Your task to perform on an android device: open app "Mercado Libre" (install if not already installed) Image 0: 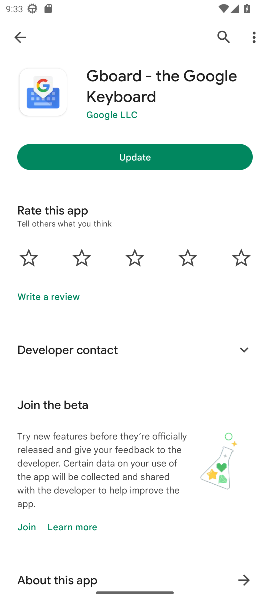
Step 0: press home button
Your task to perform on an android device: open app "Mercado Libre" (install if not already installed) Image 1: 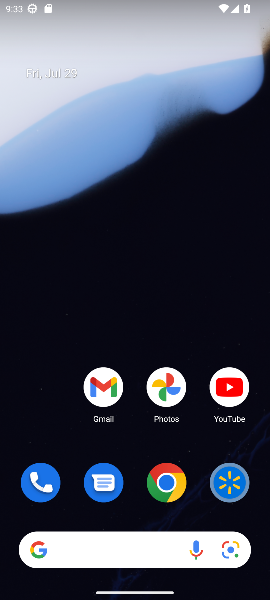
Step 1: drag from (134, 595) to (120, 296)
Your task to perform on an android device: open app "Mercado Libre" (install if not already installed) Image 2: 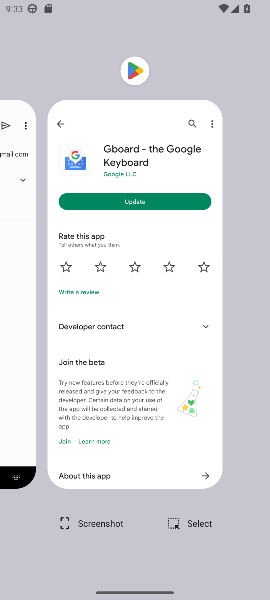
Step 2: press home button
Your task to perform on an android device: open app "Mercado Libre" (install if not already installed) Image 3: 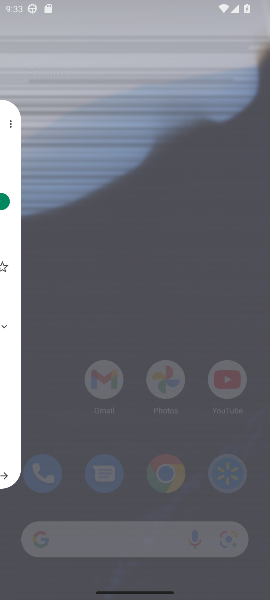
Step 3: press home button
Your task to perform on an android device: open app "Mercado Libre" (install if not already installed) Image 4: 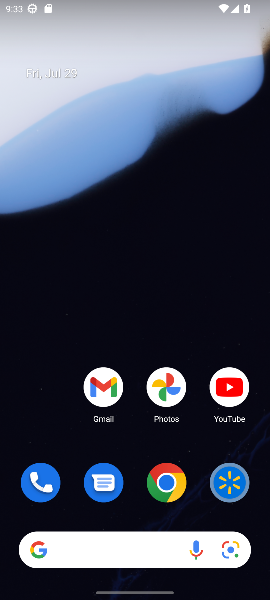
Step 4: press home button
Your task to perform on an android device: open app "Mercado Libre" (install if not already installed) Image 5: 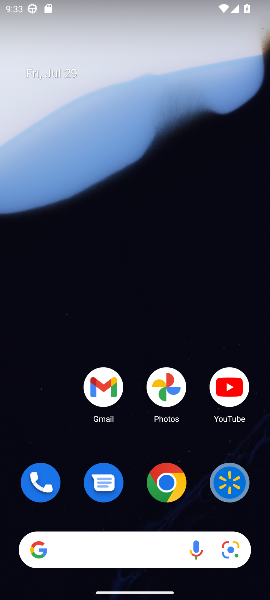
Step 5: drag from (139, 592) to (121, 130)
Your task to perform on an android device: open app "Mercado Libre" (install if not already installed) Image 6: 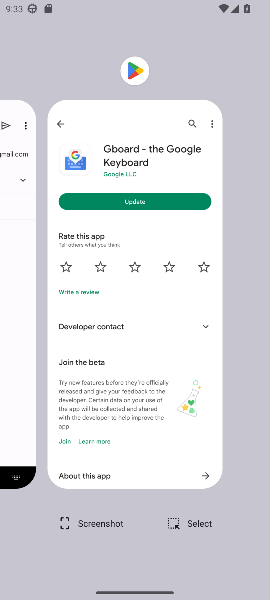
Step 6: press home button
Your task to perform on an android device: open app "Mercado Libre" (install if not already installed) Image 7: 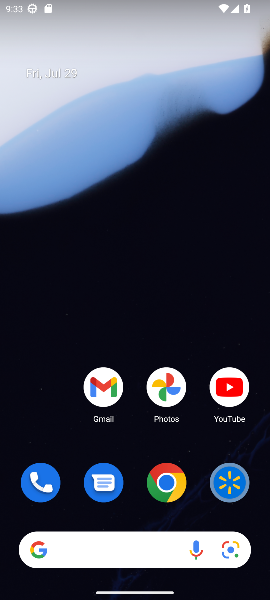
Step 7: drag from (123, 598) to (94, 186)
Your task to perform on an android device: open app "Mercado Libre" (install if not already installed) Image 8: 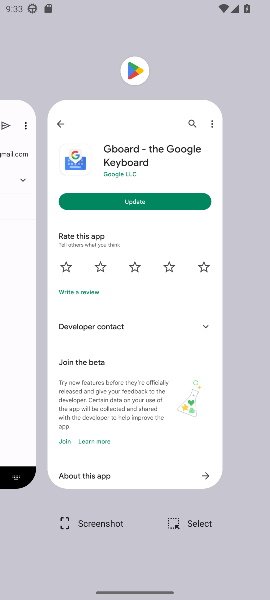
Step 8: press home button
Your task to perform on an android device: open app "Mercado Libre" (install if not already installed) Image 9: 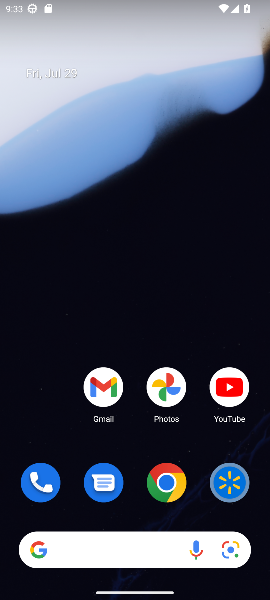
Step 9: drag from (129, 588) to (110, 177)
Your task to perform on an android device: open app "Mercado Libre" (install if not already installed) Image 10: 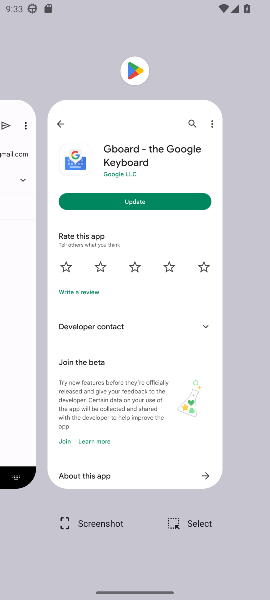
Step 10: click (108, 263)
Your task to perform on an android device: open app "Mercado Libre" (install if not already installed) Image 11: 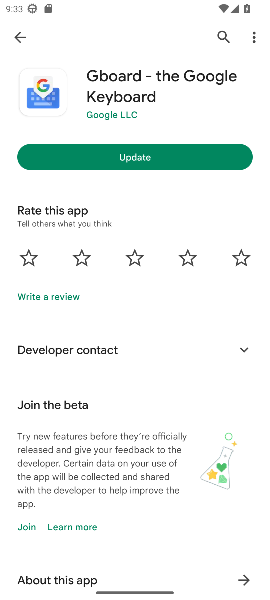
Step 11: click (224, 36)
Your task to perform on an android device: open app "Mercado Libre" (install if not already installed) Image 12: 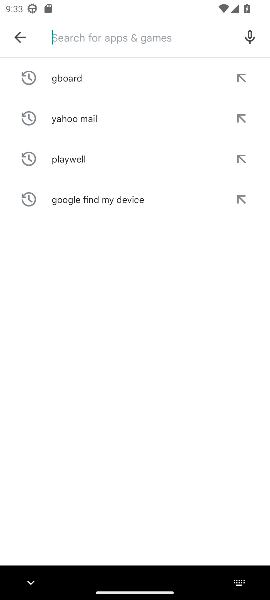
Step 12: type "Mercado Libre"
Your task to perform on an android device: open app "Mercado Libre" (install if not already installed) Image 13: 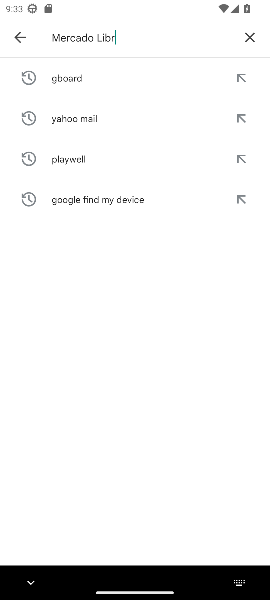
Step 13: type ""
Your task to perform on an android device: open app "Mercado Libre" (install if not already installed) Image 14: 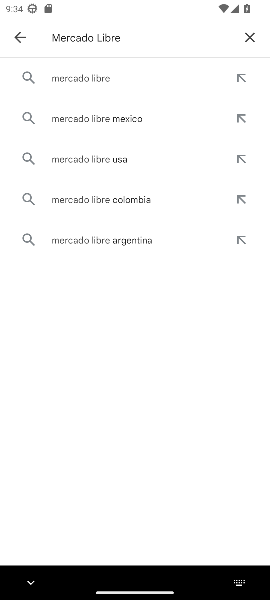
Step 14: click (71, 78)
Your task to perform on an android device: open app "Mercado Libre" (install if not already installed) Image 15: 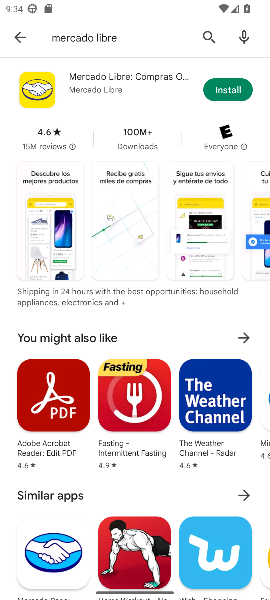
Step 15: click (233, 89)
Your task to perform on an android device: open app "Mercado Libre" (install if not already installed) Image 16: 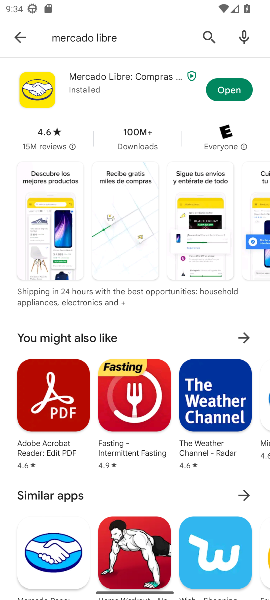
Step 16: task complete